Your task to perform on an android device: When is my next appointment? Image 0: 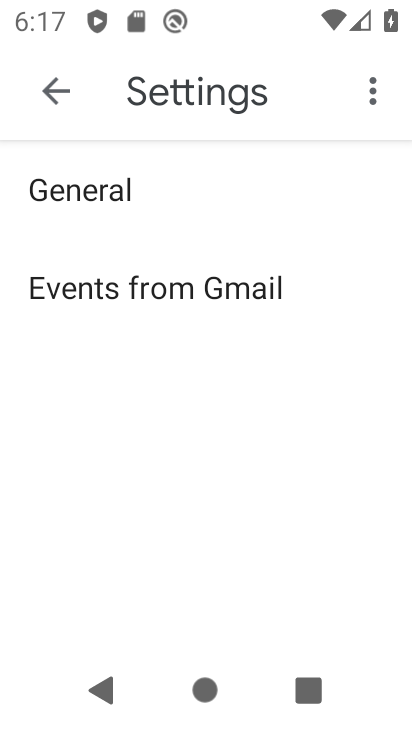
Step 0: press home button
Your task to perform on an android device: When is my next appointment? Image 1: 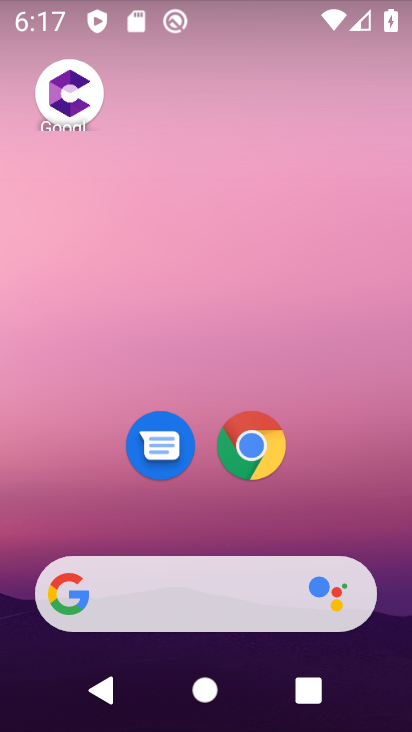
Step 1: drag from (259, 532) to (267, 104)
Your task to perform on an android device: When is my next appointment? Image 2: 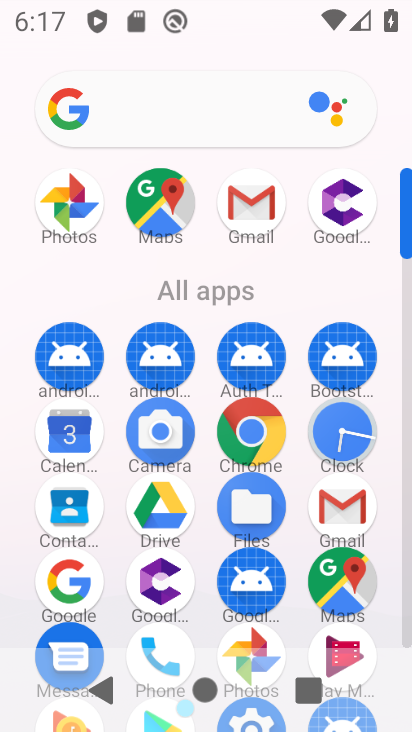
Step 2: press back button
Your task to perform on an android device: When is my next appointment? Image 3: 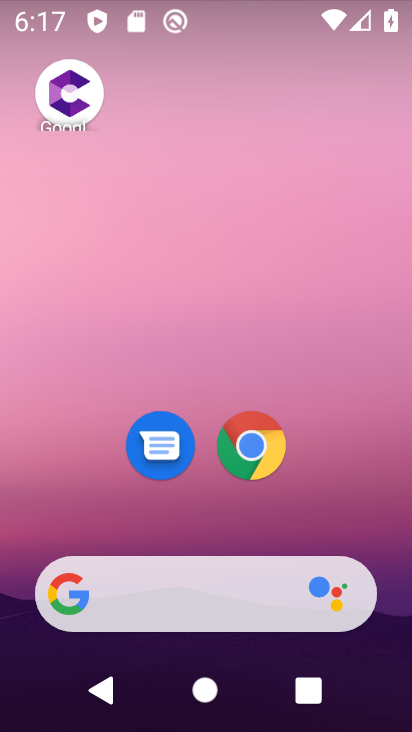
Step 3: drag from (227, 524) to (229, 203)
Your task to perform on an android device: When is my next appointment? Image 4: 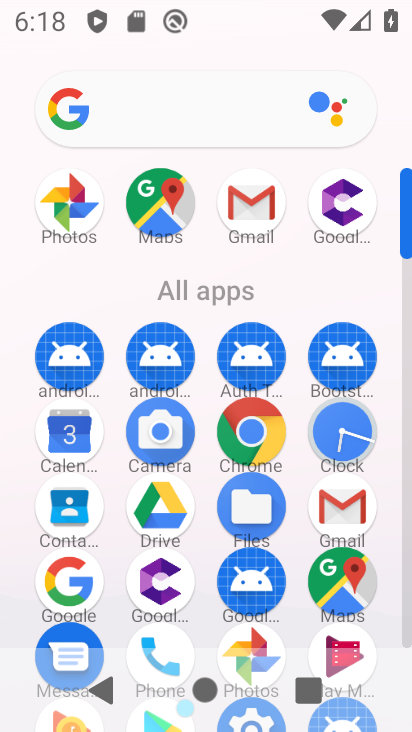
Step 4: click (71, 450)
Your task to perform on an android device: When is my next appointment? Image 5: 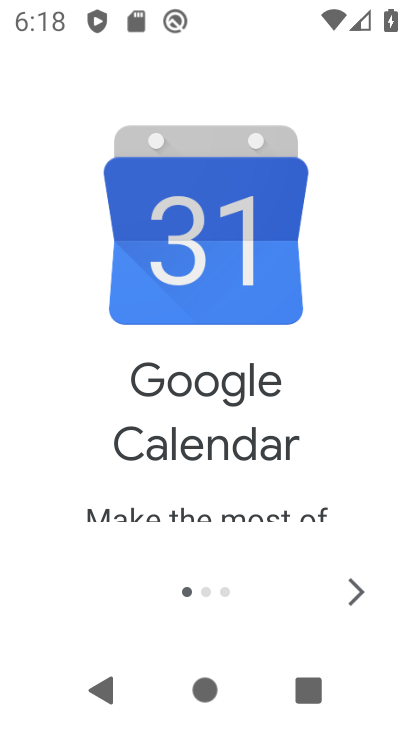
Step 5: click (354, 597)
Your task to perform on an android device: When is my next appointment? Image 6: 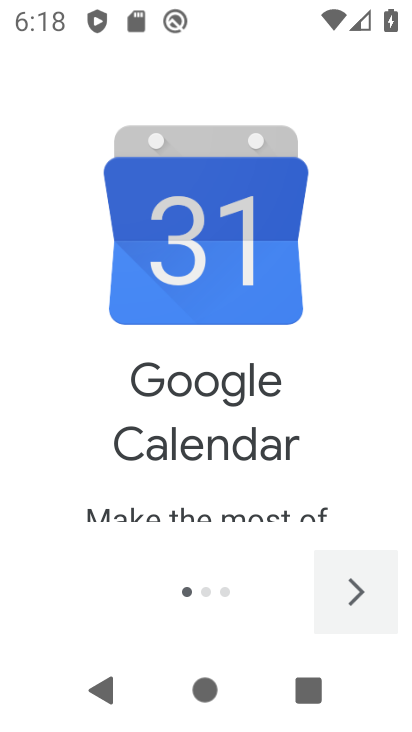
Step 6: click (354, 597)
Your task to perform on an android device: When is my next appointment? Image 7: 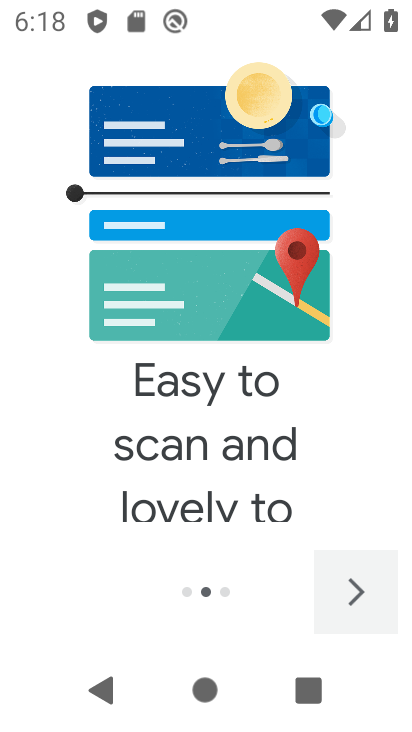
Step 7: click (354, 597)
Your task to perform on an android device: When is my next appointment? Image 8: 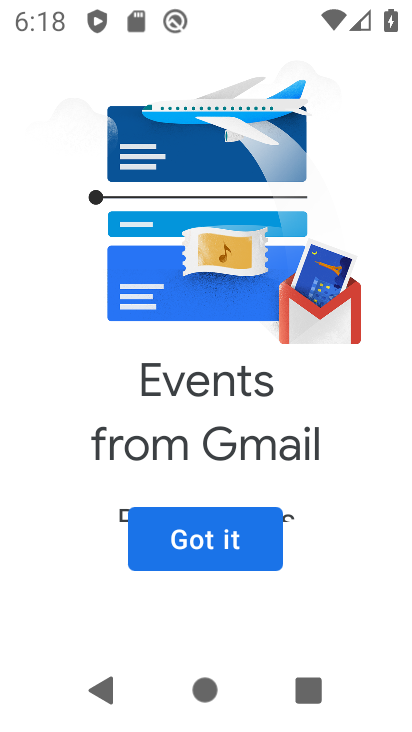
Step 8: click (219, 555)
Your task to perform on an android device: When is my next appointment? Image 9: 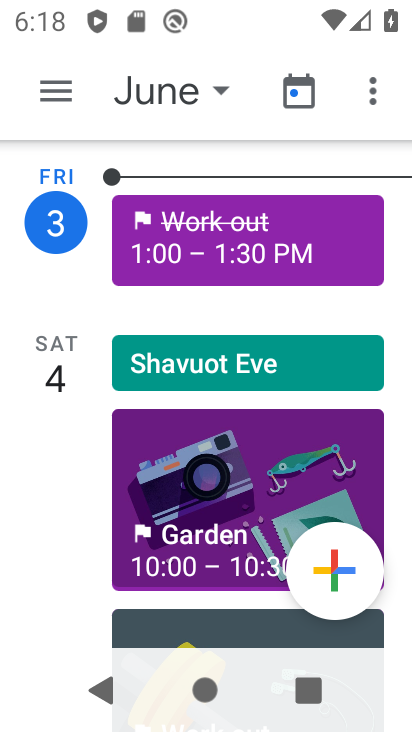
Step 9: task complete